Your task to perform on an android device: manage bookmarks in the chrome app Image 0: 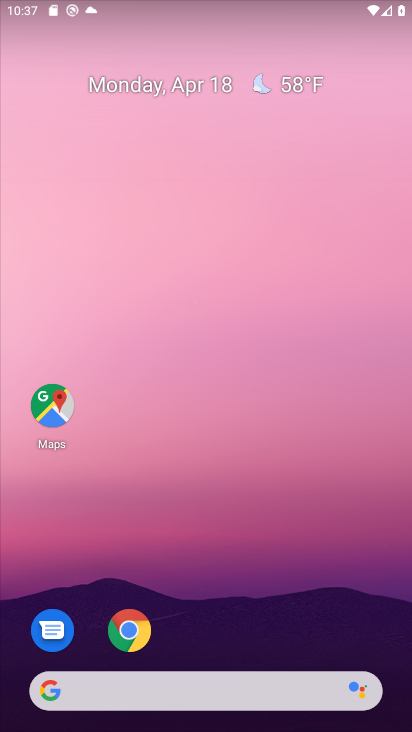
Step 0: click (124, 627)
Your task to perform on an android device: manage bookmarks in the chrome app Image 1: 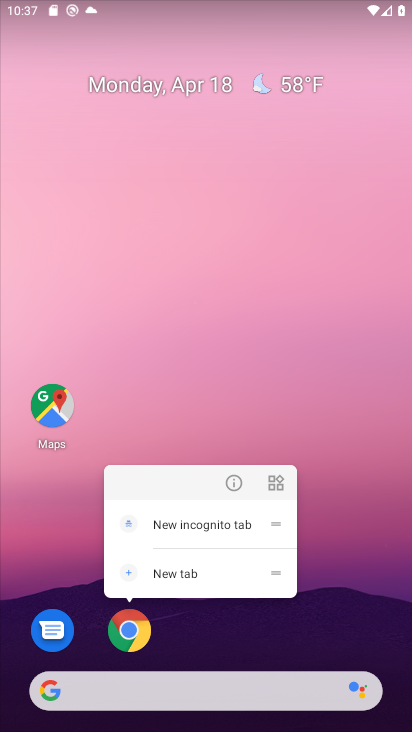
Step 1: click (143, 628)
Your task to perform on an android device: manage bookmarks in the chrome app Image 2: 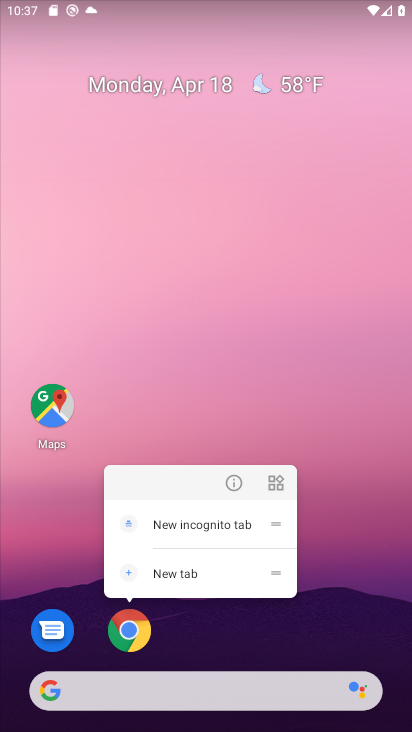
Step 2: click (141, 624)
Your task to perform on an android device: manage bookmarks in the chrome app Image 3: 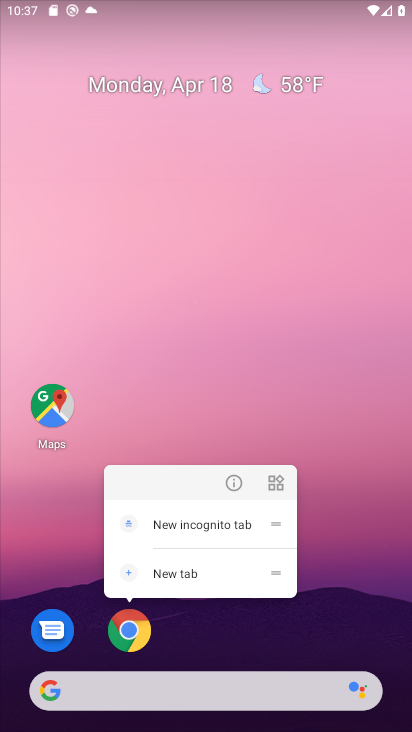
Step 3: click (142, 618)
Your task to perform on an android device: manage bookmarks in the chrome app Image 4: 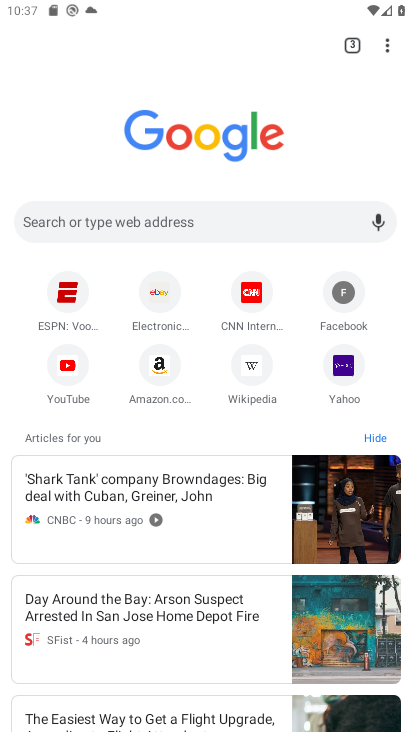
Step 4: click (384, 44)
Your task to perform on an android device: manage bookmarks in the chrome app Image 5: 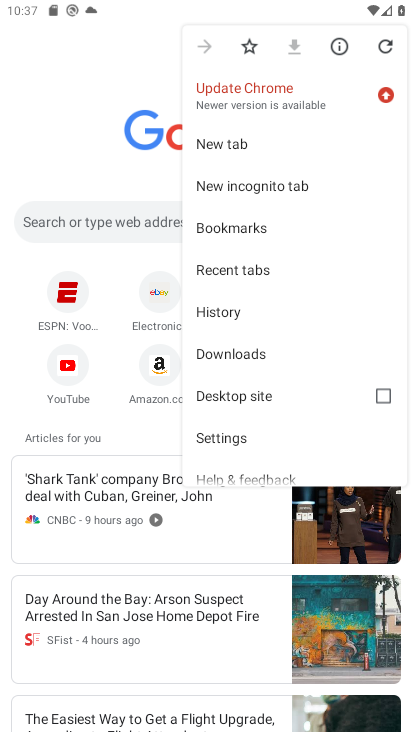
Step 5: click (242, 228)
Your task to perform on an android device: manage bookmarks in the chrome app Image 6: 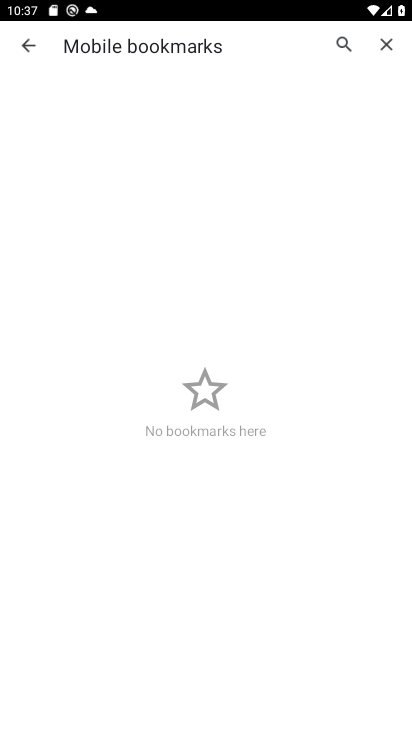
Step 6: task complete